Your task to perform on an android device: turn off smart reply in the gmail app Image 0: 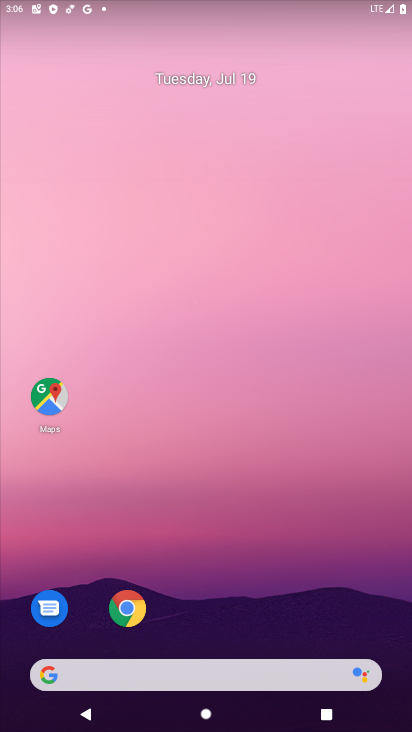
Step 0: drag from (328, 606) to (272, 68)
Your task to perform on an android device: turn off smart reply in the gmail app Image 1: 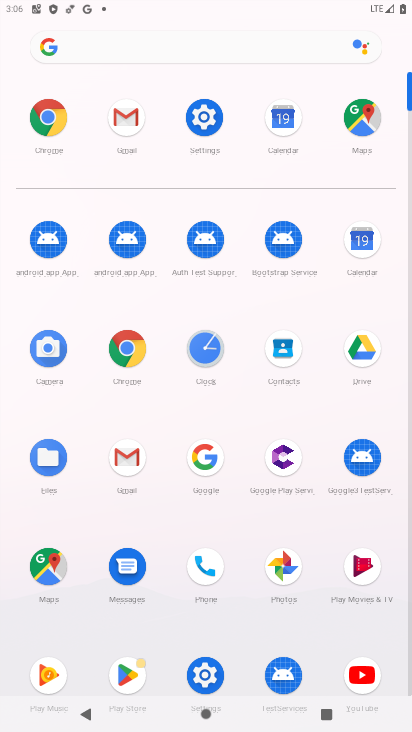
Step 1: click (114, 114)
Your task to perform on an android device: turn off smart reply in the gmail app Image 2: 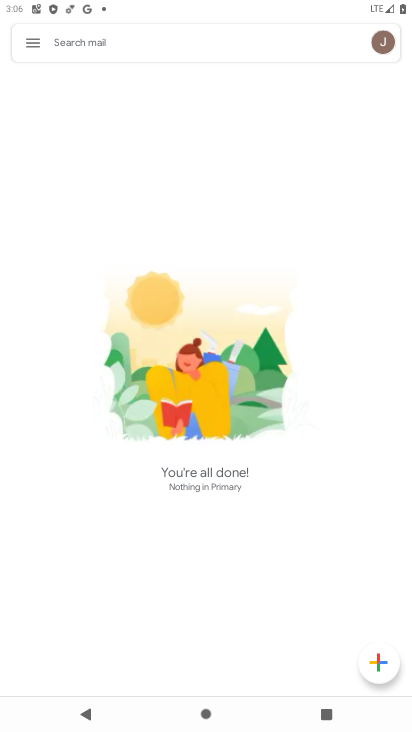
Step 2: click (36, 40)
Your task to perform on an android device: turn off smart reply in the gmail app Image 3: 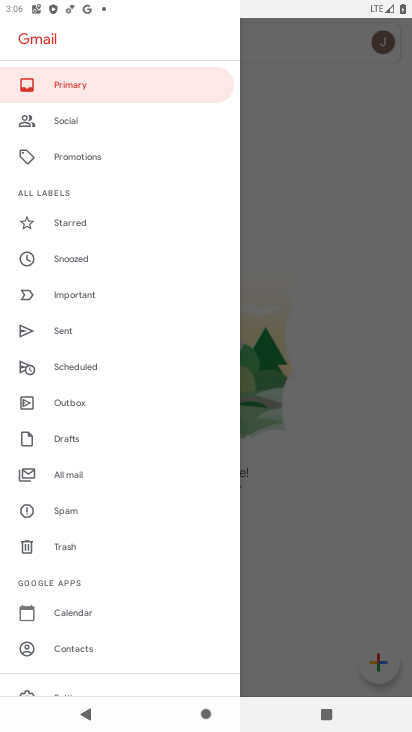
Step 3: drag from (60, 634) to (89, 211)
Your task to perform on an android device: turn off smart reply in the gmail app Image 4: 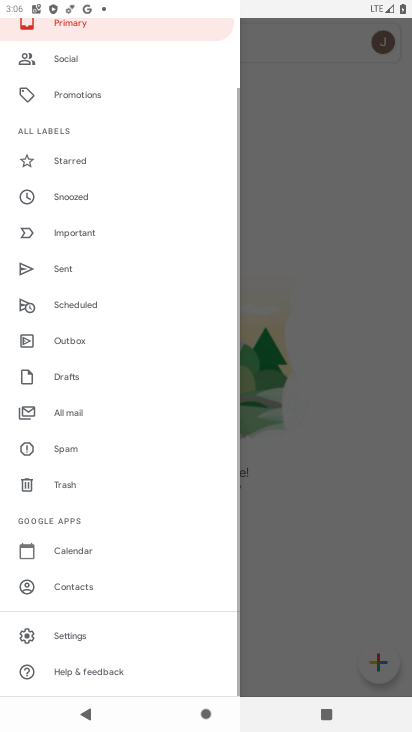
Step 4: click (76, 632)
Your task to perform on an android device: turn off smart reply in the gmail app Image 5: 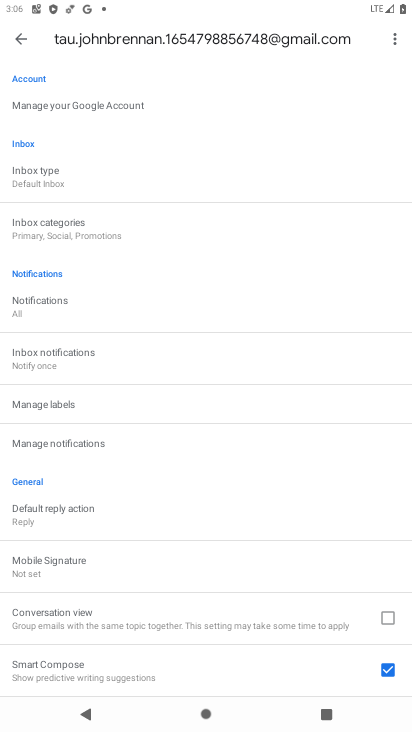
Step 5: drag from (271, 554) to (276, 254)
Your task to perform on an android device: turn off smart reply in the gmail app Image 6: 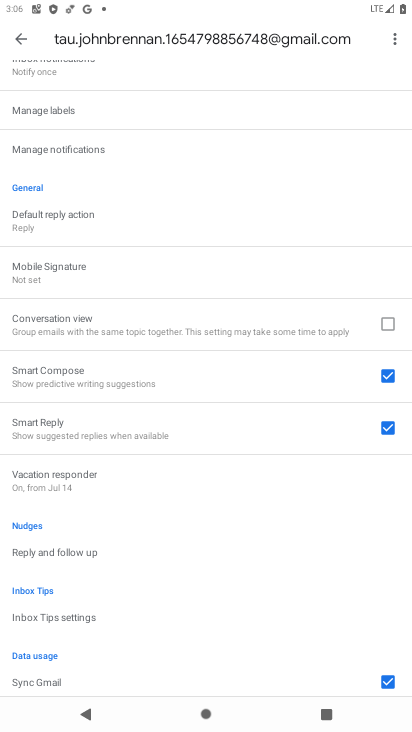
Step 6: click (387, 423)
Your task to perform on an android device: turn off smart reply in the gmail app Image 7: 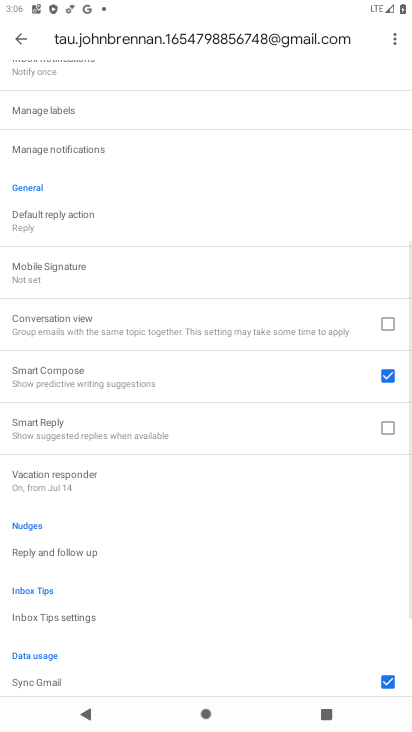
Step 7: task complete